Your task to perform on an android device: Open Wikipedia Image 0: 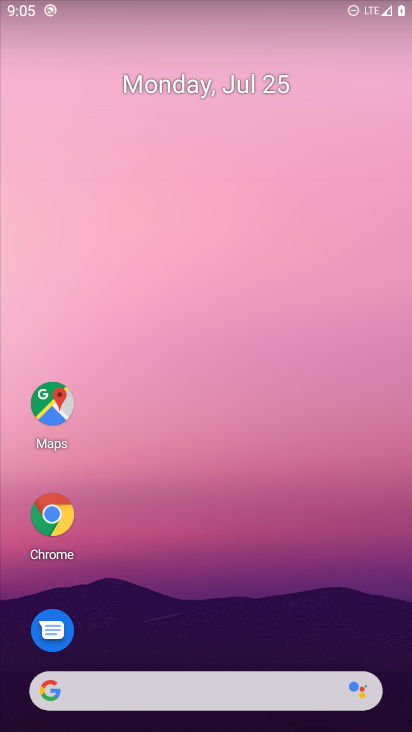
Step 0: click (107, 672)
Your task to perform on an android device: Open Wikipedia Image 1: 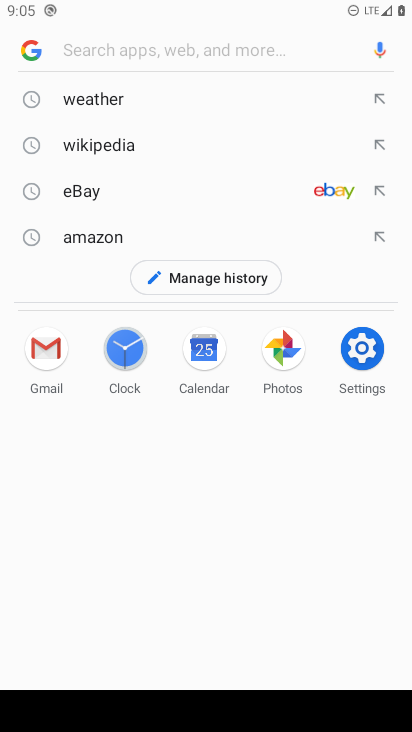
Step 1: click (131, 150)
Your task to perform on an android device: Open Wikipedia Image 2: 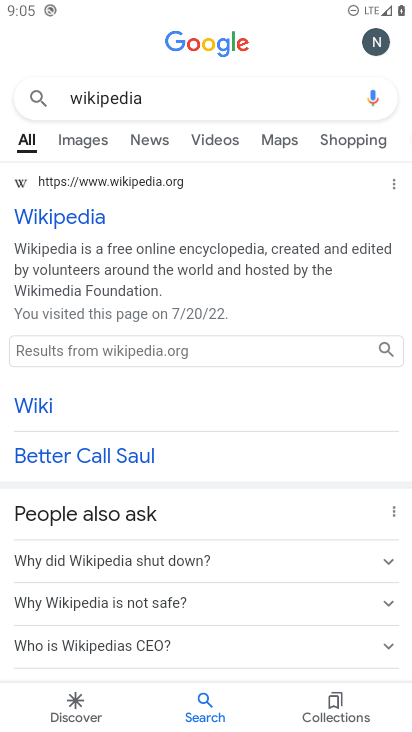
Step 2: task complete